Your task to perform on an android device: Is it going to rain today? Image 0: 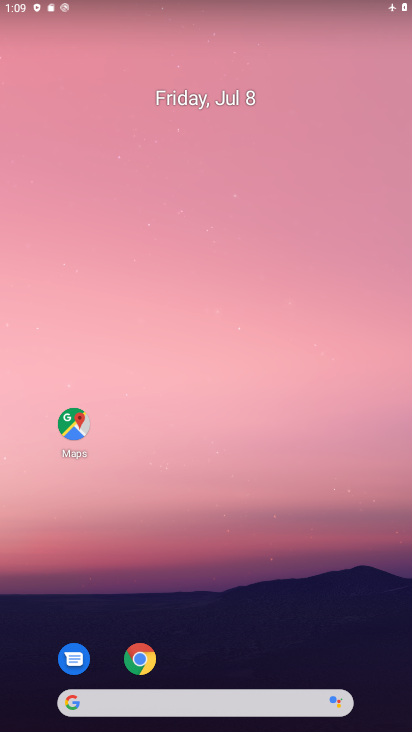
Step 0: drag from (210, 649) to (306, 104)
Your task to perform on an android device: Is it going to rain today? Image 1: 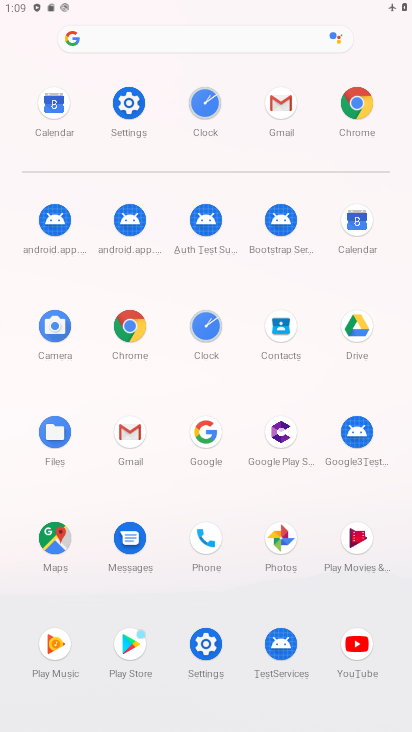
Step 1: click (121, 337)
Your task to perform on an android device: Is it going to rain today? Image 2: 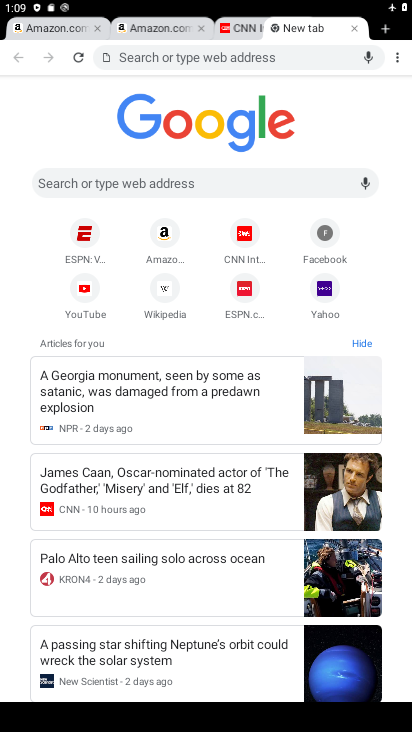
Step 2: type "weather"
Your task to perform on an android device: Is it going to rain today? Image 3: 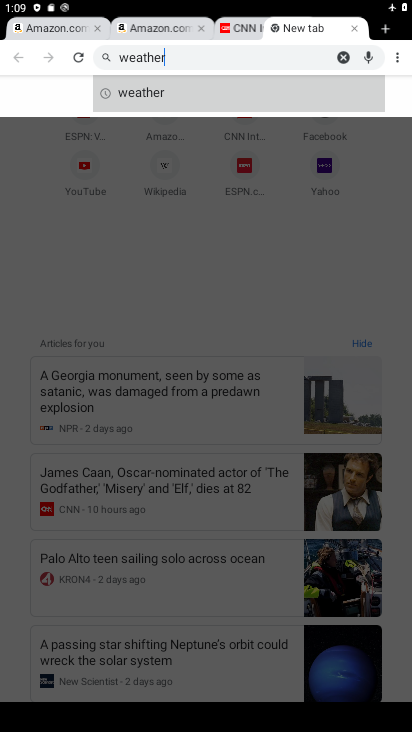
Step 3: type ""
Your task to perform on an android device: Is it going to rain today? Image 4: 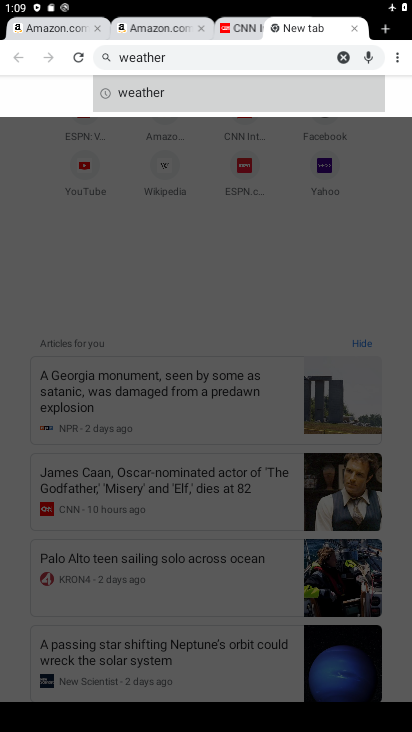
Step 4: click (206, 95)
Your task to perform on an android device: Is it going to rain today? Image 5: 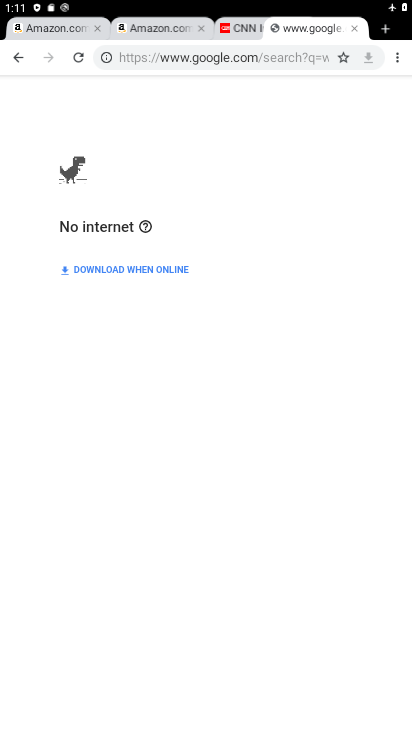
Step 5: task complete